Your task to perform on an android device: toggle notification dots Image 0: 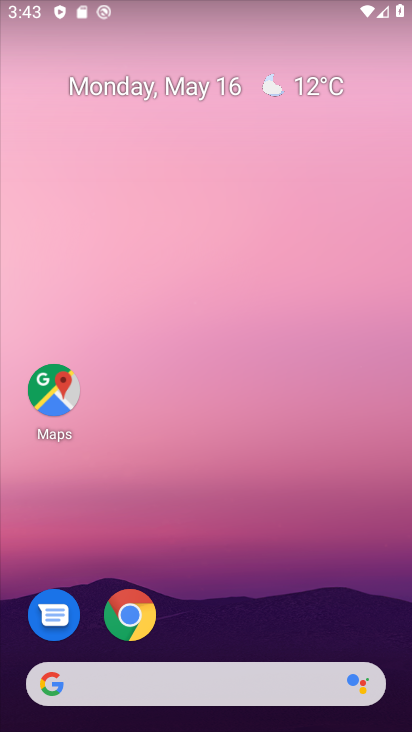
Step 0: drag from (200, 708) to (200, 199)
Your task to perform on an android device: toggle notification dots Image 1: 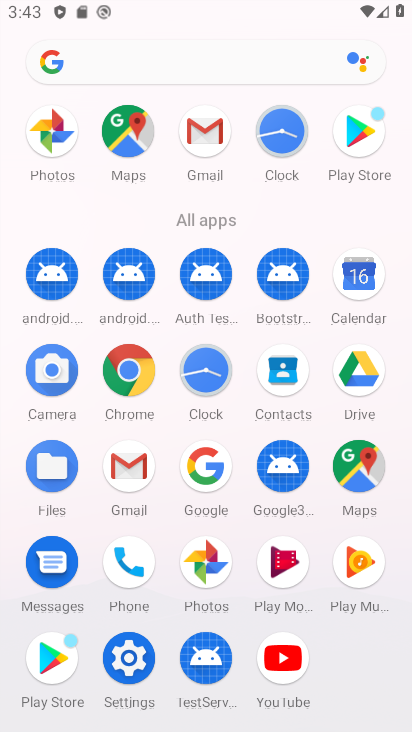
Step 1: click (126, 644)
Your task to perform on an android device: toggle notification dots Image 2: 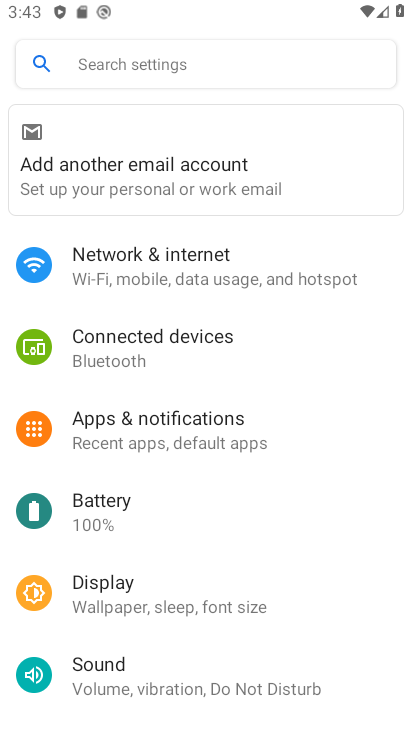
Step 2: click (156, 424)
Your task to perform on an android device: toggle notification dots Image 3: 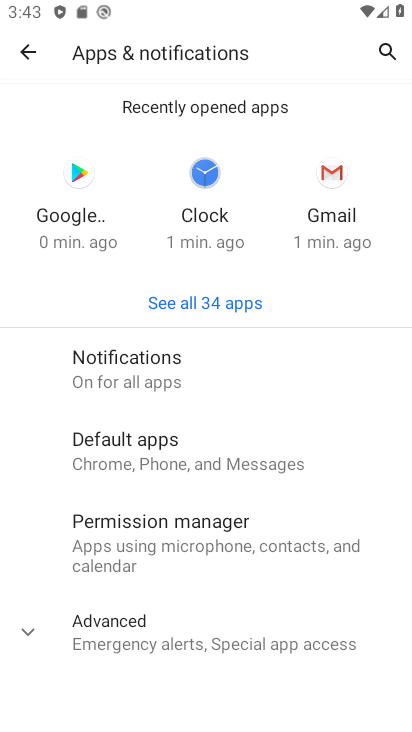
Step 3: click (131, 366)
Your task to perform on an android device: toggle notification dots Image 4: 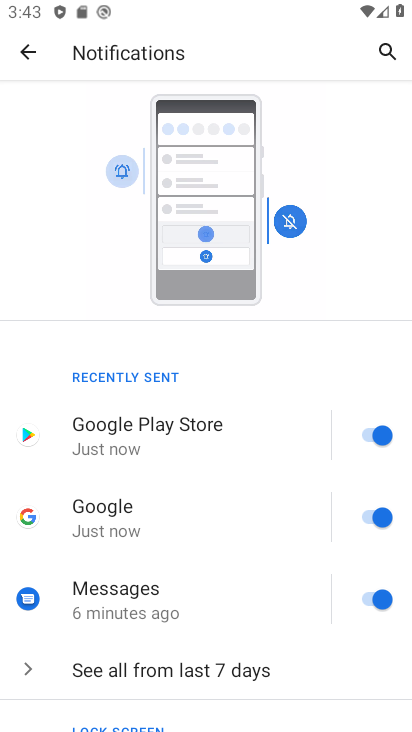
Step 4: drag from (186, 707) to (207, 359)
Your task to perform on an android device: toggle notification dots Image 5: 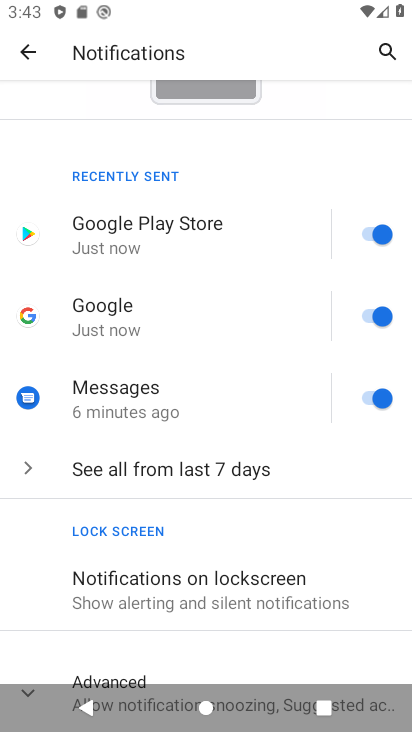
Step 5: drag from (232, 670) to (233, 380)
Your task to perform on an android device: toggle notification dots Image 6: 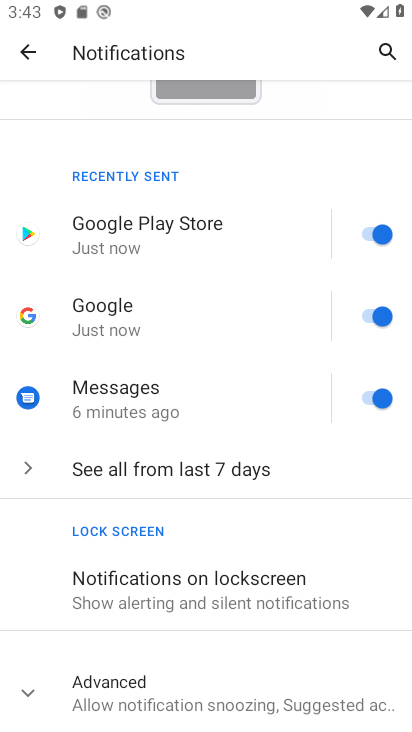
Step 6: click (213, 701)
Your task to perform on an android device: toggle notification dots Image 7: 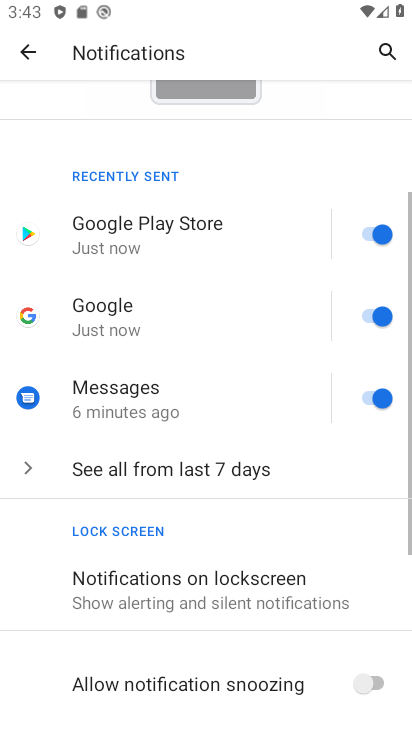
Step 7: drag from (230, 663) to (217, 282)
Your task to perform on an android device: toggle notification dots Image 8: 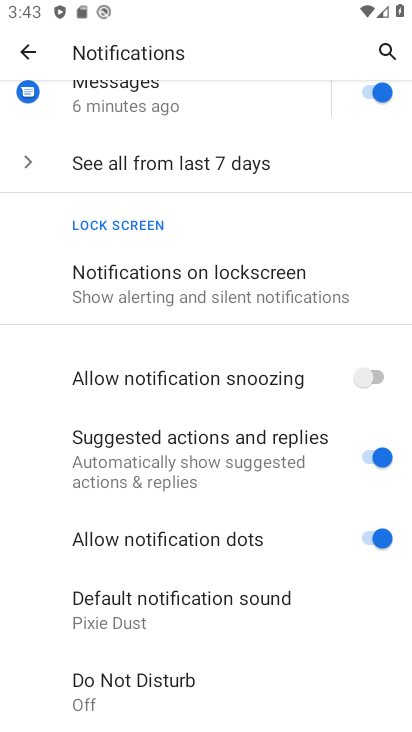
Step 8: click (369, 539)
Your task to perform on an android device: toggle notification dots Image 9: 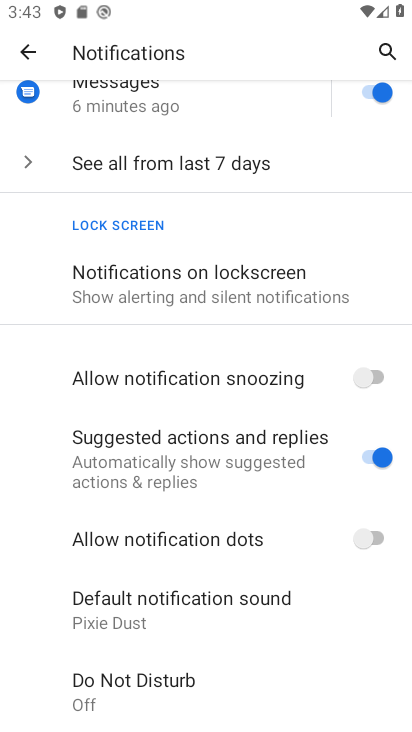
Step 9: task complete